Your task to perform on an android device: Open Yahoo.com Image 0: 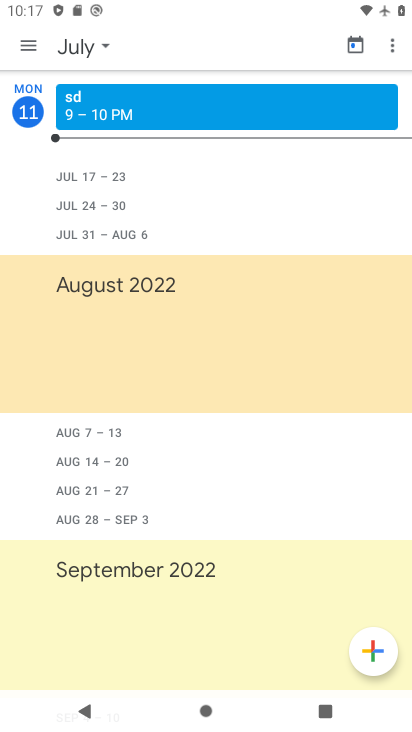
Step 0: press home button
Your task to perform on an android device: Open Yahoo.com Image 1: 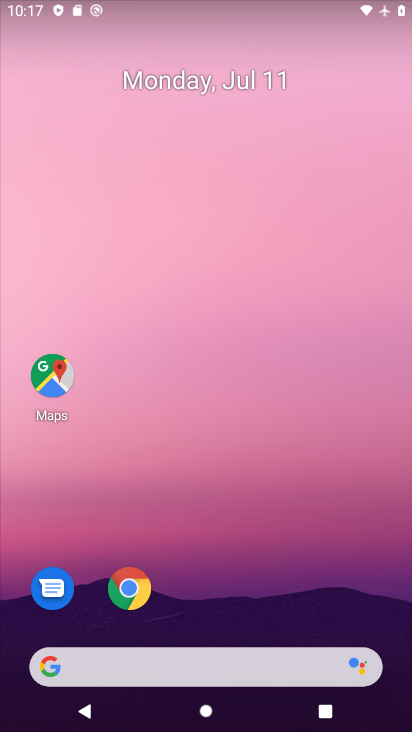
Step 1: click (140, 589)
Your task to perform on an android device: Open Yahoo.com Image 2: 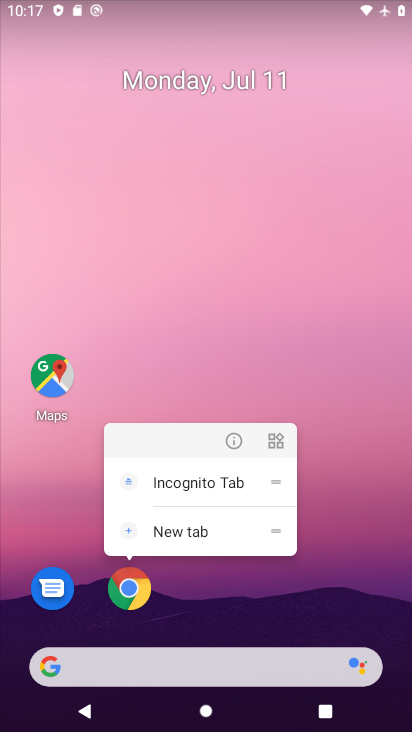
Step 2: click (127, 592)
Your task to perform on an android device: Open Yahoo.com Image 3: 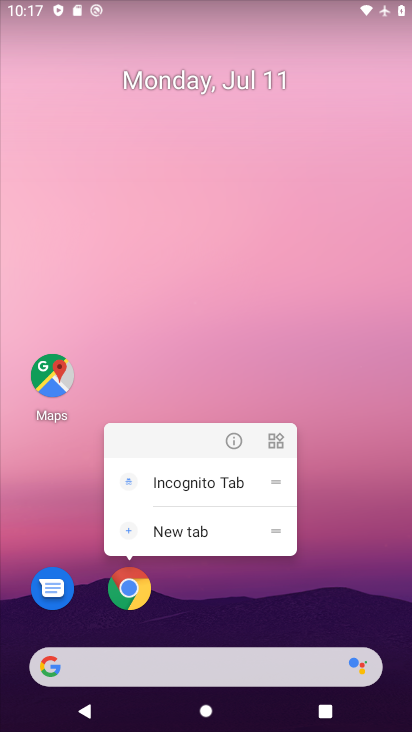
Step 3: click (127, 590)
Your task to perform on an android device: Open Yahoo.com Image 4: 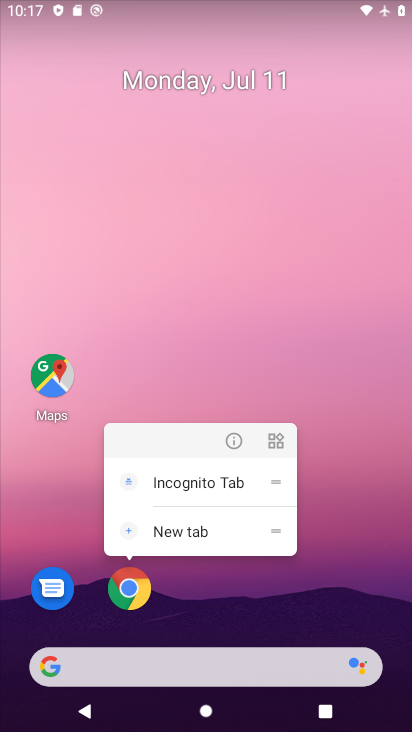
Step 4: click (127, 593)
Your task to perform on an android device: Open Yahoo.com Image 5: 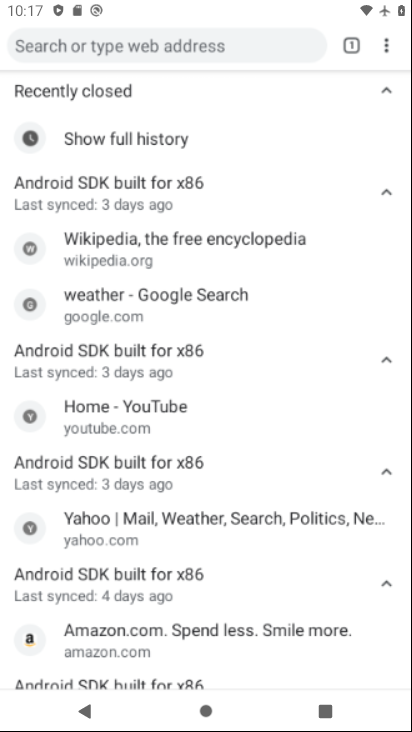
Step 5: click (127, 593)
Your task to perform on an android device: Open Yahoo.com Image 6: 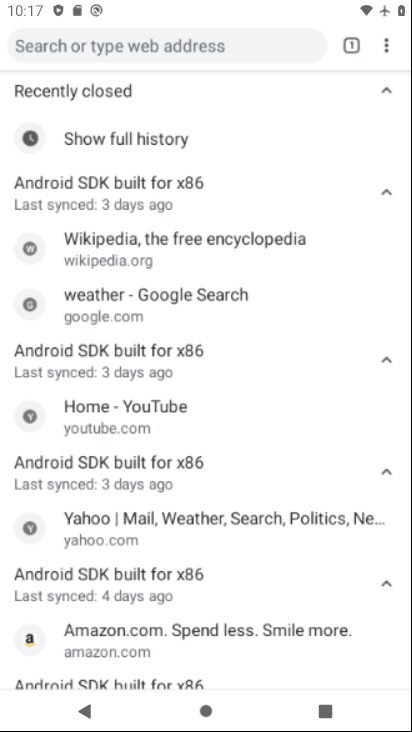
Step 6: click (383, 44)
Your task to perform on an android device: Open Yahoo.com Image 7: 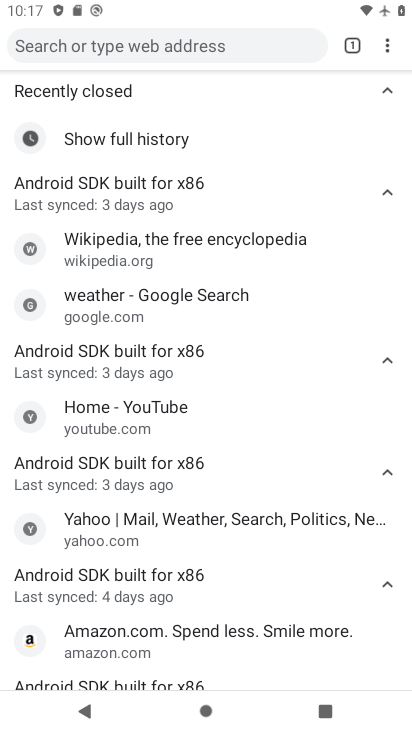
Step 7: drag from (387, 43) to (260, 87)
Your task to perform on an android device: Open Yahoo.com Image 8: 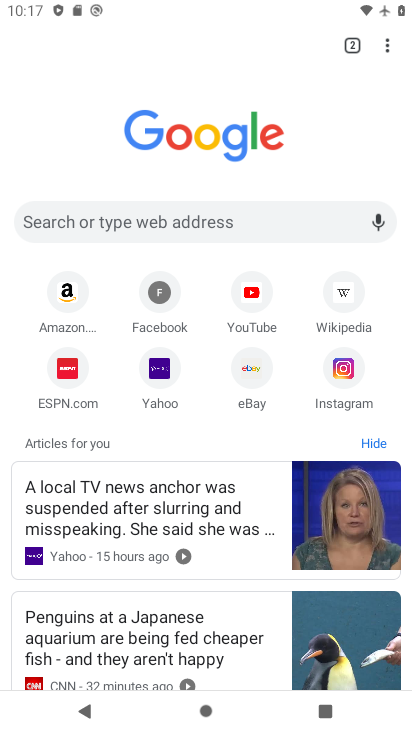
Step 8: click (168, 374)
Your task to perform on an android device: Open Yahoo.com Image 9: 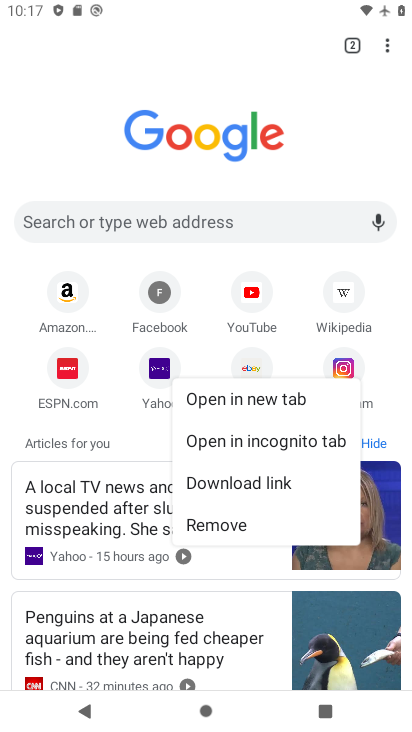
Step 9: click (152, 375)
Your task to perform on an android device: Open Yahoo.com Image 10: 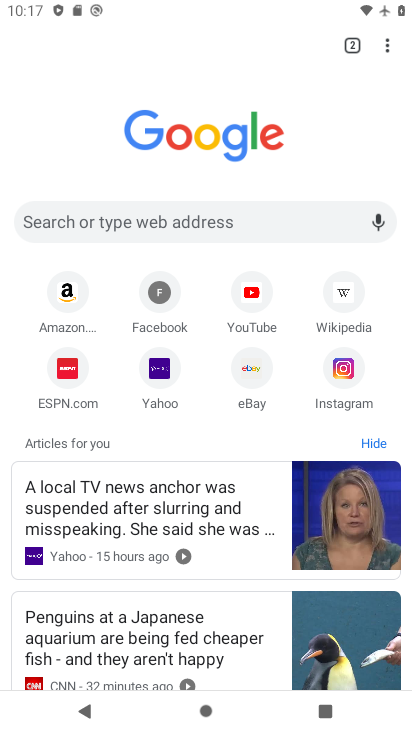
Step 10: click (156, 373)
Your task to perform on an android device: Open Yahoo.com Image 11: 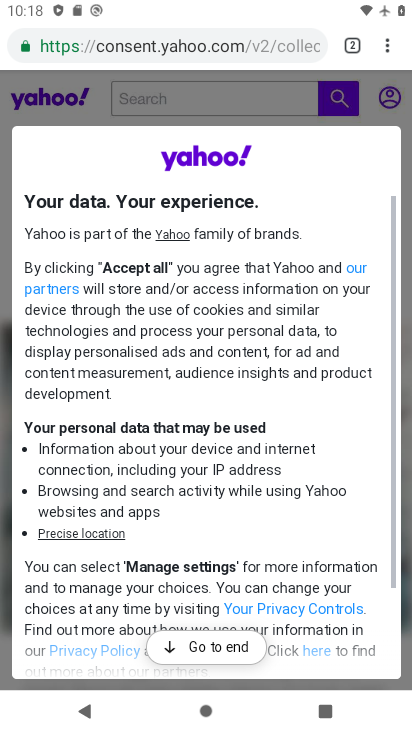
Step 11: click (212, 650)
Your task to perform on an android device: Open Yahoo.com Image 12: 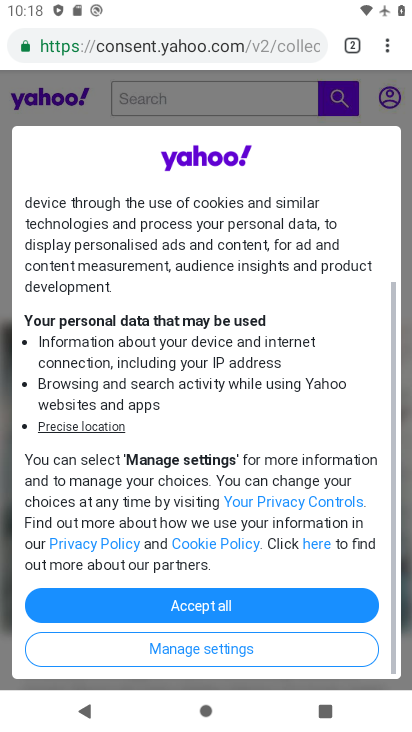
Step 12: click (223, 602)
Your task to perform on an android device: Open Yahoo.com Image 13: 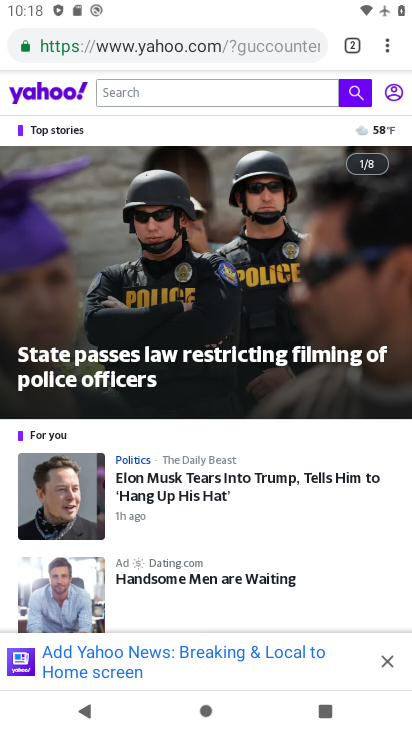
Step 13: task complete